Your task to perform on an android device: Go to Google maps Image 0: 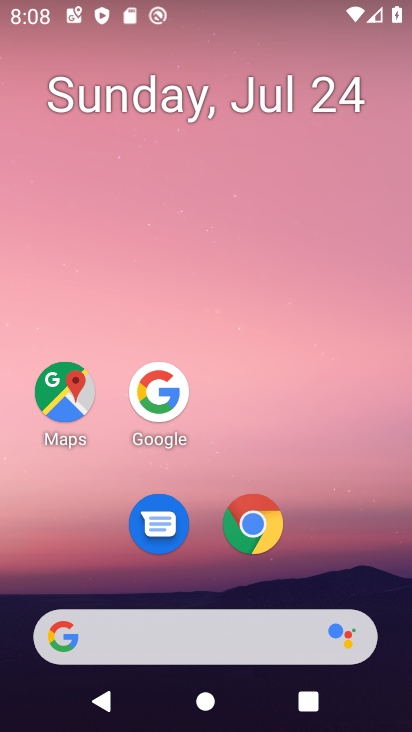
Step 0: press home button
Your task to perform on an android device: Go to Google maps Image 1: 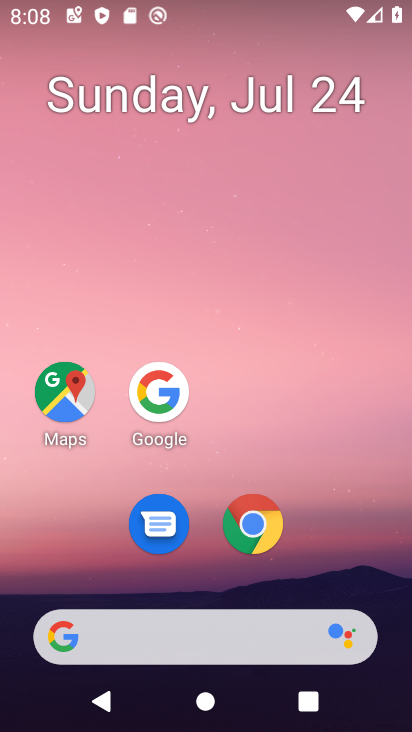
Step 1: click (61, 402)
Your task to perform on an android device: Go to Google maps Image 2: 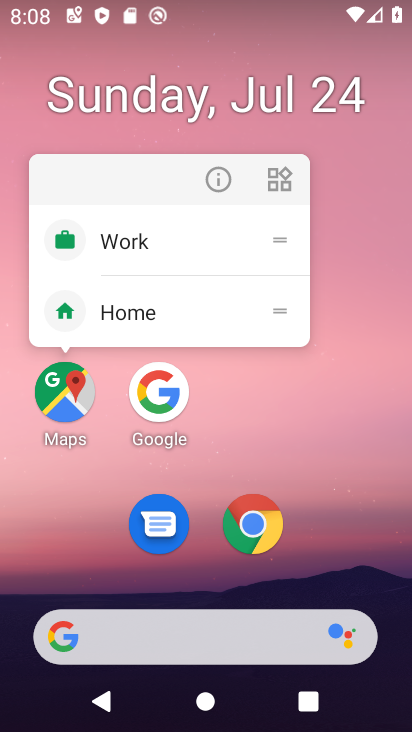
Step 2: click (66, 394)
Your task to perform on an android device: Go to Google maps Image 3: 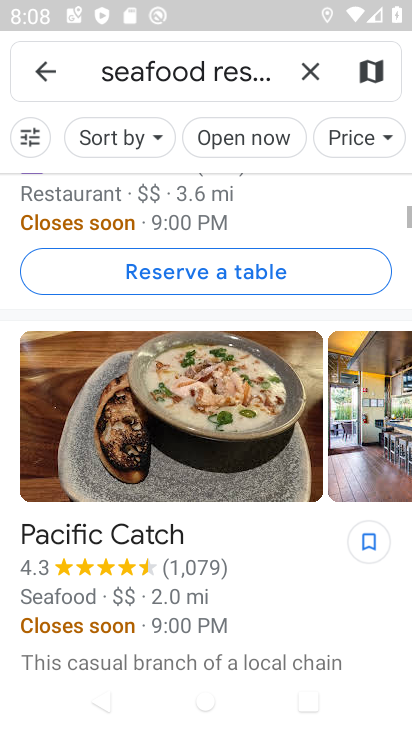
Step 3: click (43, 74)
Your task to perform on an android device: Go to Google maps Image 4: 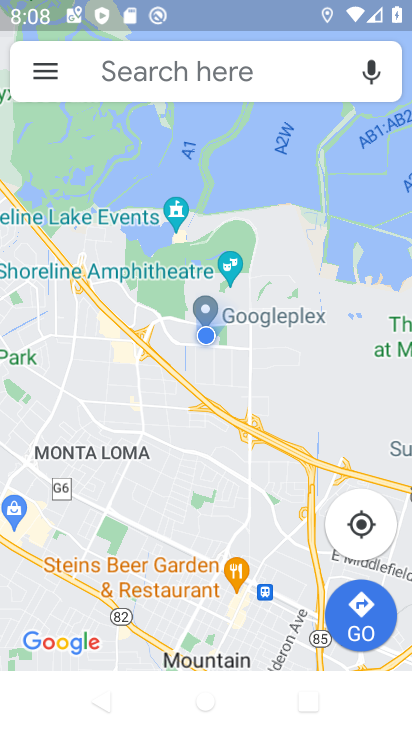
Step 4: task complete